Your task to perform on an android device: Go to eBay Image 0: 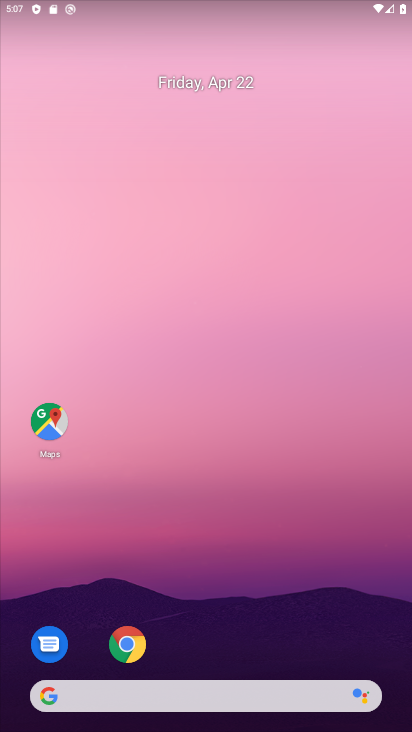
Step 0: click (125, 637)
Your task to perform on an android device: Go to eBay Image 1: 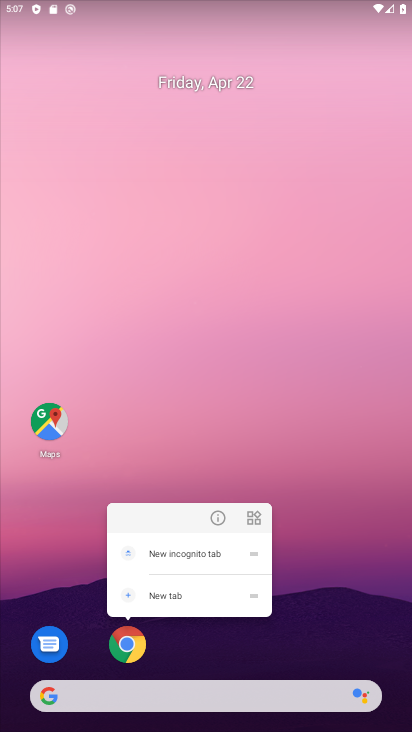
Step 1: click (129, 632)
Your task to perform on an android device: Go to eBay Image 2: 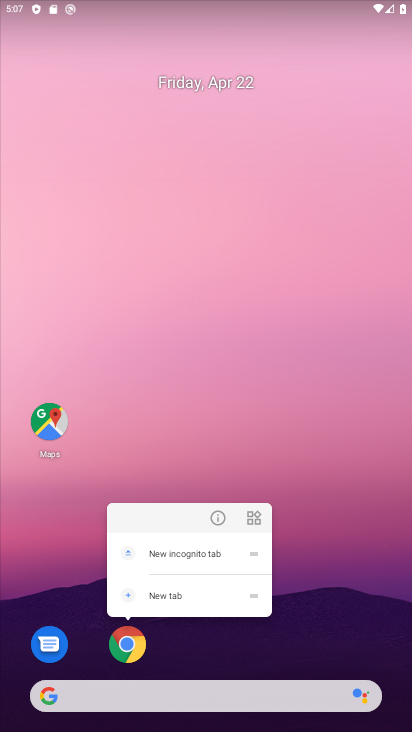
Step 2: click (129, 632)
Your task to perform on an android device: Go to eBay Image 3: 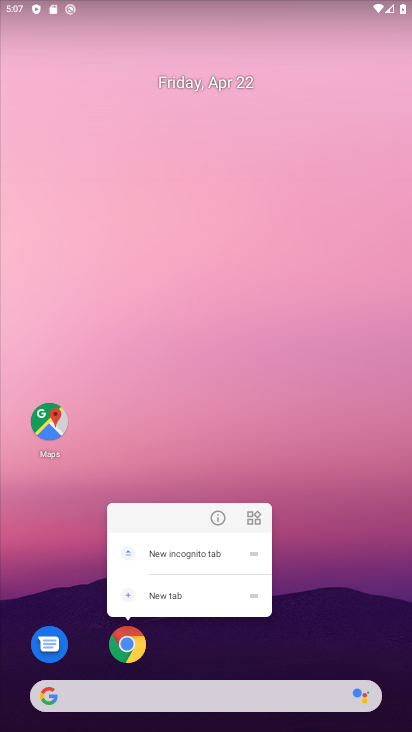
Step 3: click (216, 514)
Your task to perform on an android device: Go to eBay Image 4: 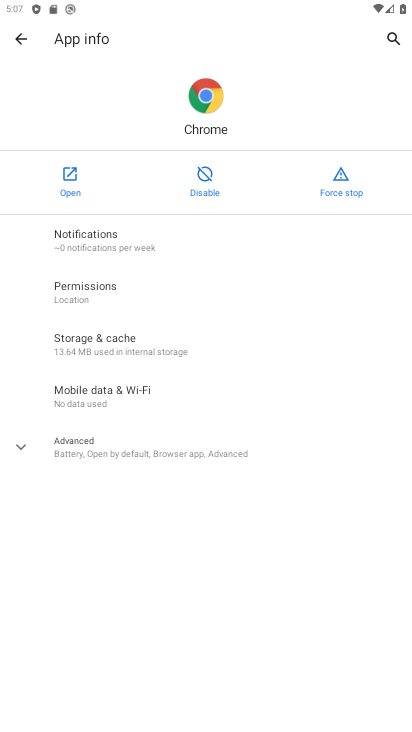
Step 4: click (80, 197)
Your task to perform on an android device: Go to eBay Image 5: 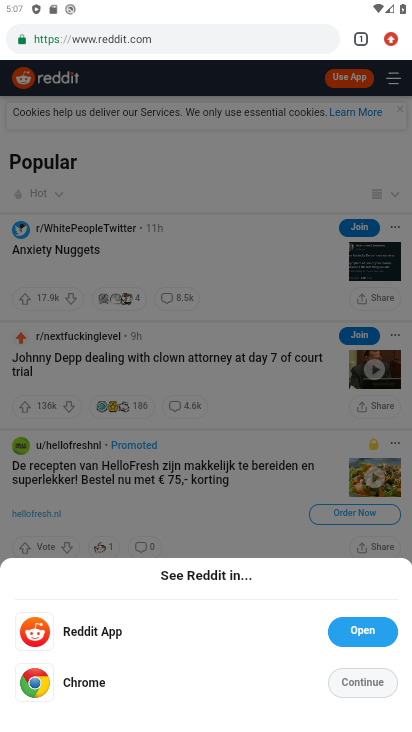
Step 5: click (364, 677)
Your task to perform on an android device: Go to eBay Image 6: 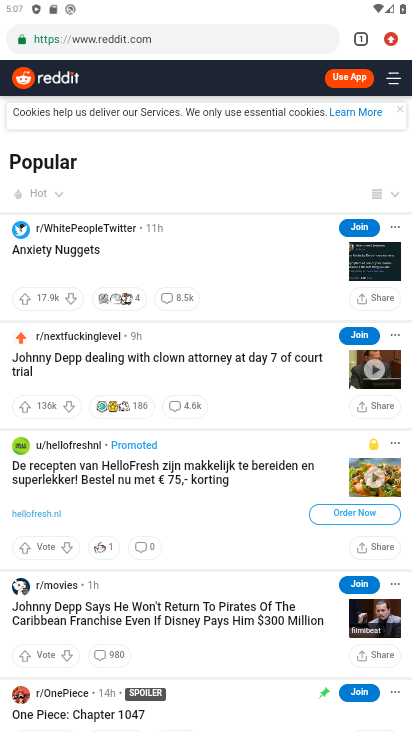
Step 6: click (146, 37)
Your task to perform on an android device: Go to eBay Image 7: 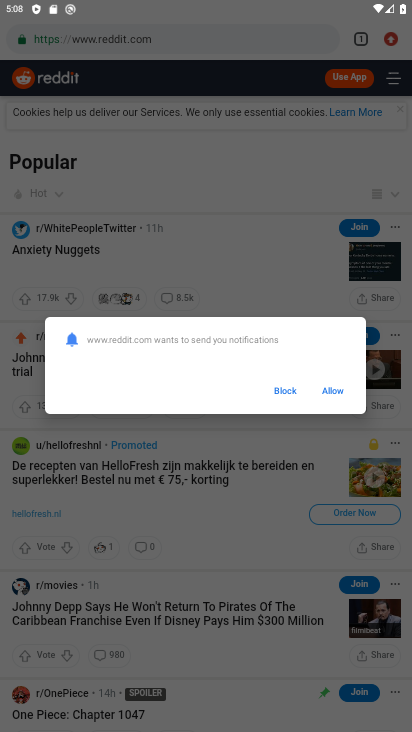
Step 7: click (284, 392)
Your task to perform on an android device: Go to eBay Image 8: 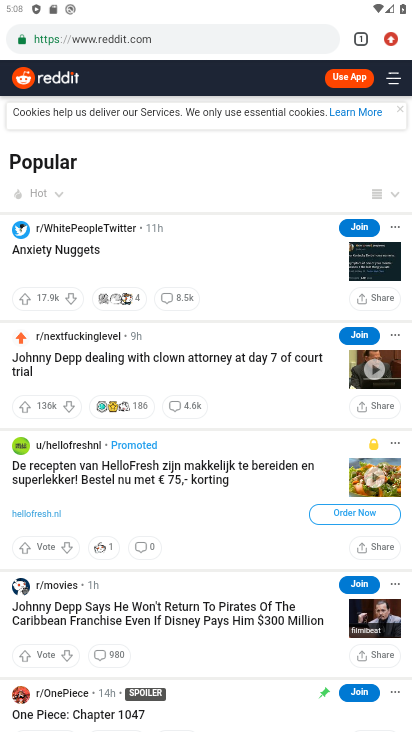
Step 8: click (80, 39)
Your task to perform on an android device: Go to eBay Image 9: 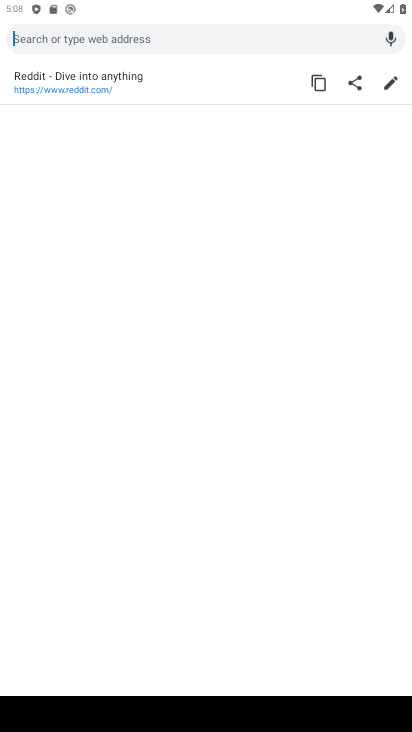
Step 9: type "eBay"
Your task to perform on an android device: Go to eBay Image 10: 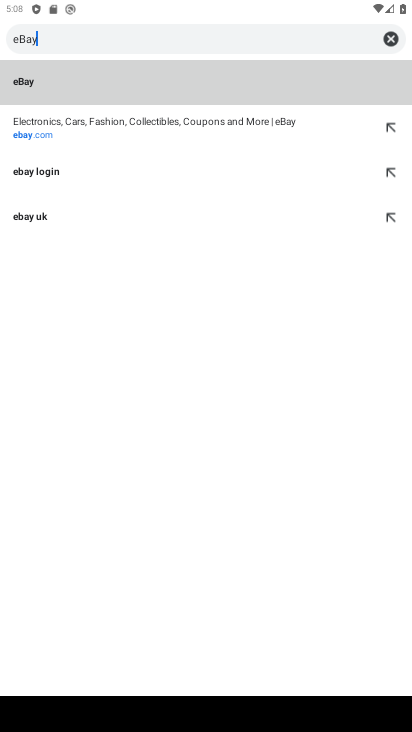
Step 10: click (43, 85)
Your task to perform on an android device: Go to eBay Image 11: 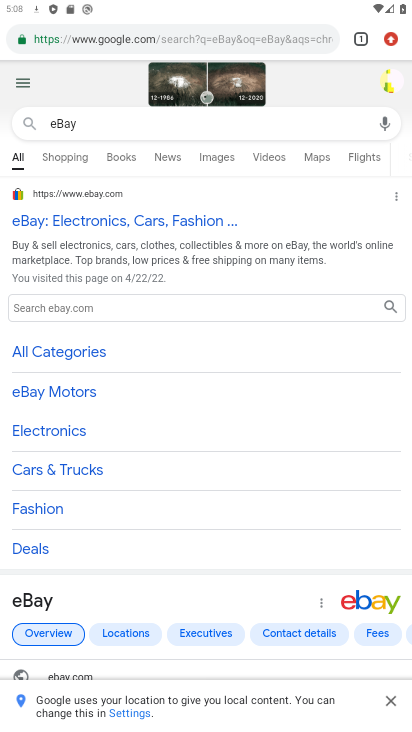
Step 11: task complete